Your task to perform on an android device: turn off notifications settings in the gmail app Image 0: 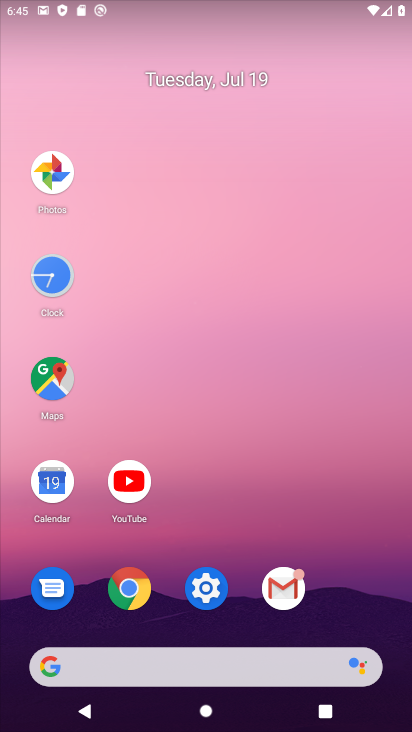
Step 0: click (283, 591)
Your task to perform on an android device: turn off notifications settings in the gmail app Image 1: 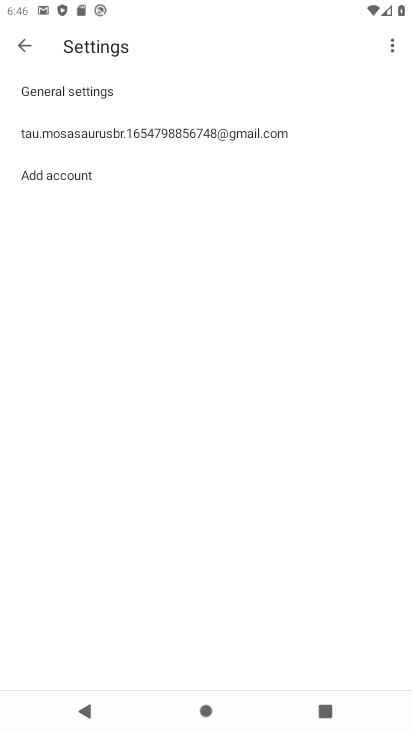
Step 1: click (55, 90)
Your task to perform on an android device: turn off notifications settings in the gmail app Image 2: 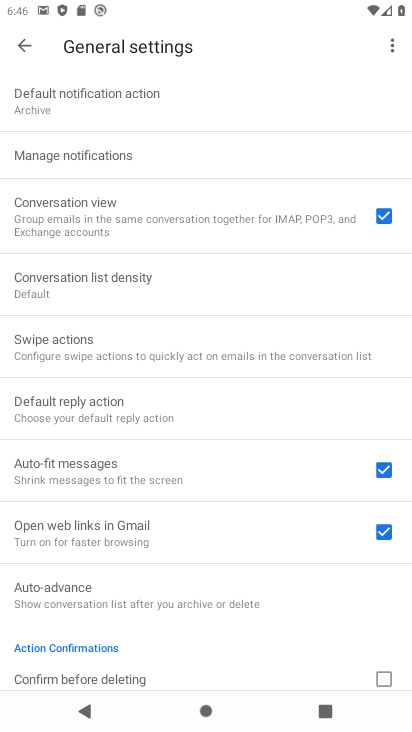
Step 2: click (77, 152)
Your task to perform on an android device: turn off notifications settings in the gmail app Image 3: 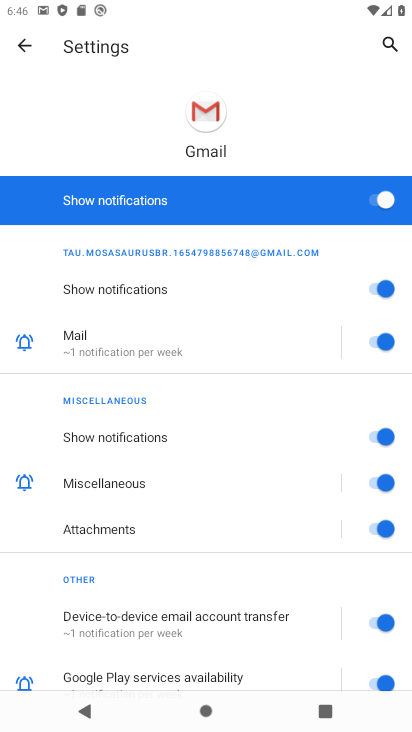
Step 3: click (382, 194)
Your task to perform on an android device: turn off notifications settings in the gmail app Image 4: 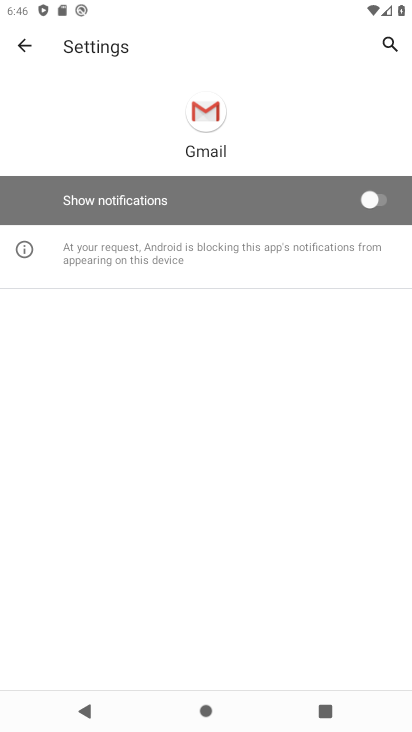
Step 4: task complete